Your task to perform on an android device: open wifi settings Image 0: 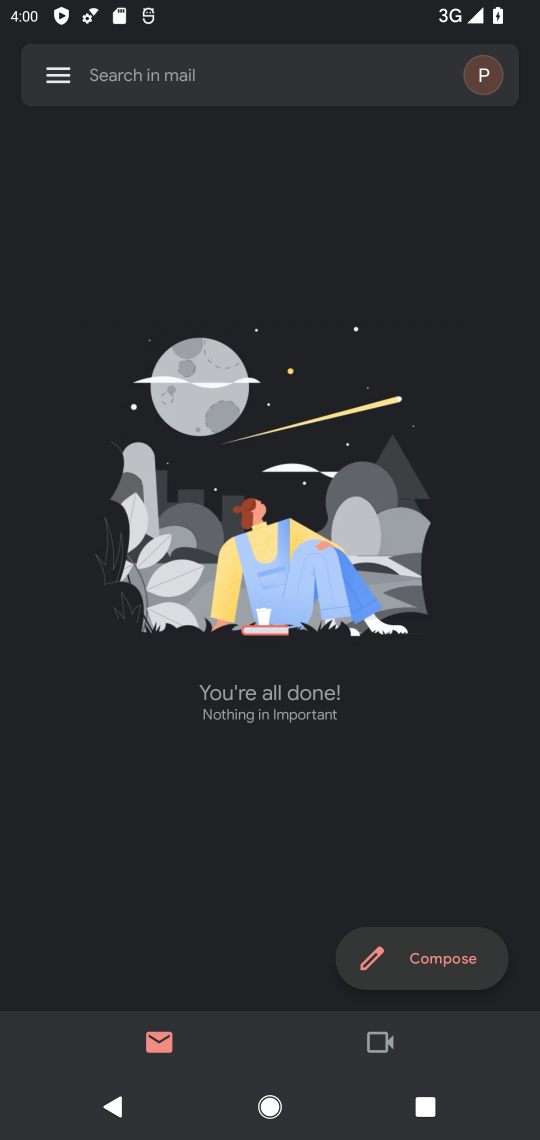
Step 0: press home button
Your task to perform on an android device: open wifi settings Image 1: 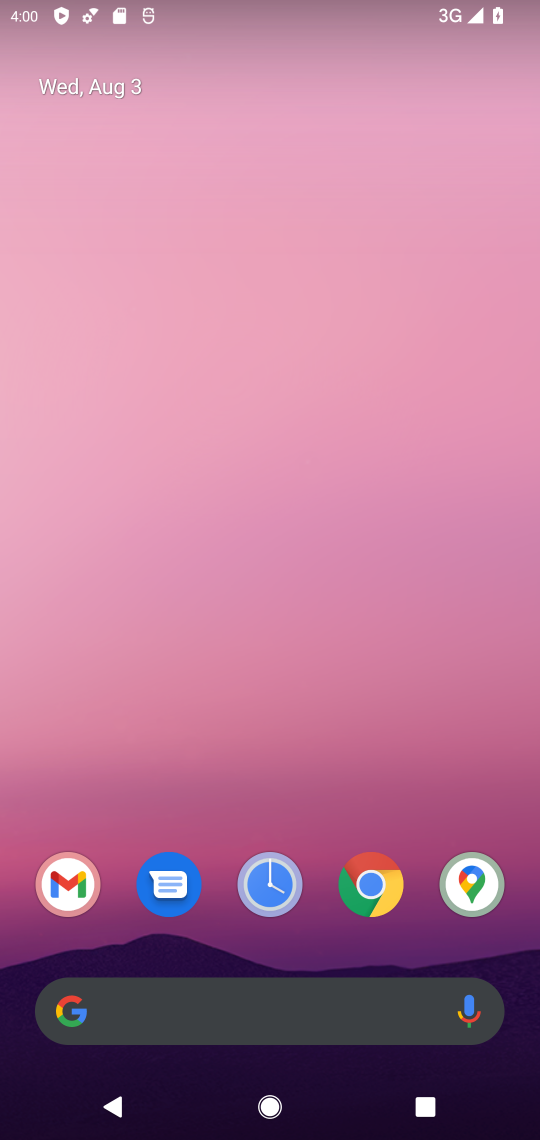
Step 1: drag from (212, 964) to (290, 245)
Your task to perform on an android device: open wifi settings Image 2: 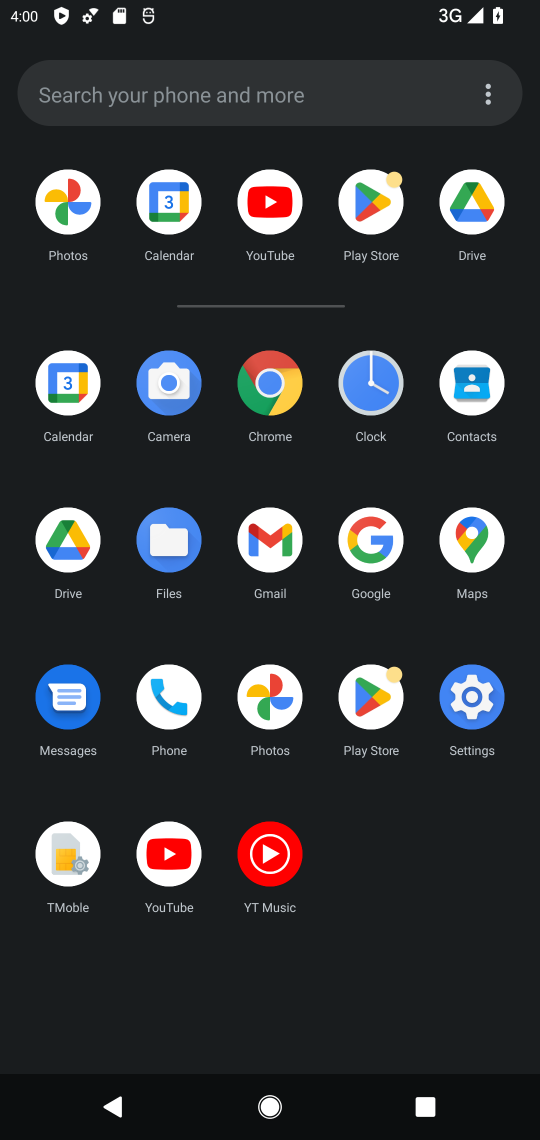
Step 2: click (475, 733)
Your task to perform on an android device: open wifi settings Image 3: 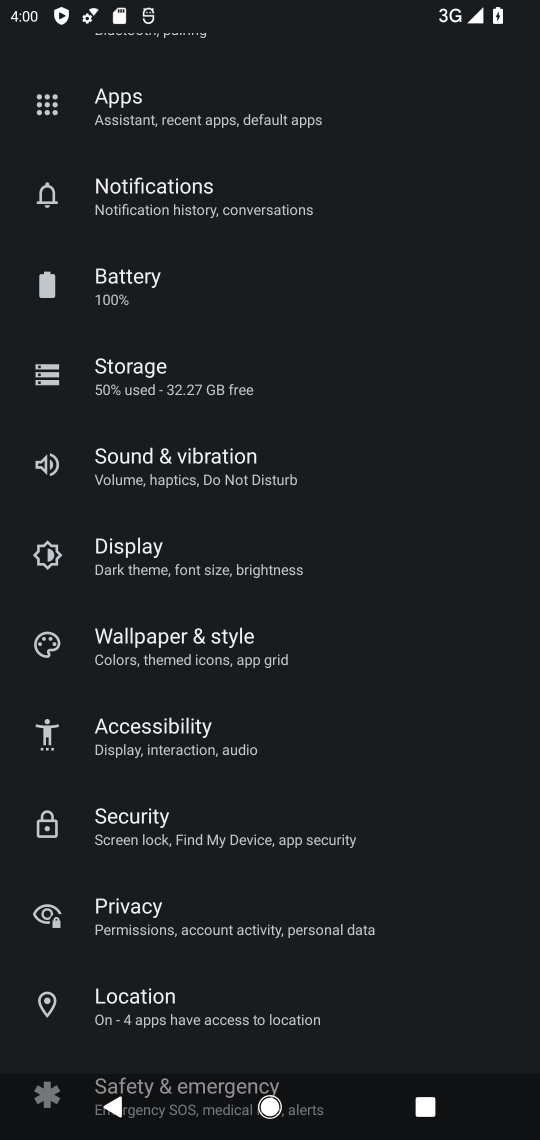
Step 3: drag from (261, 183) to (327, 913)
Your task to perform on an android device: open wifi settings Image 4: 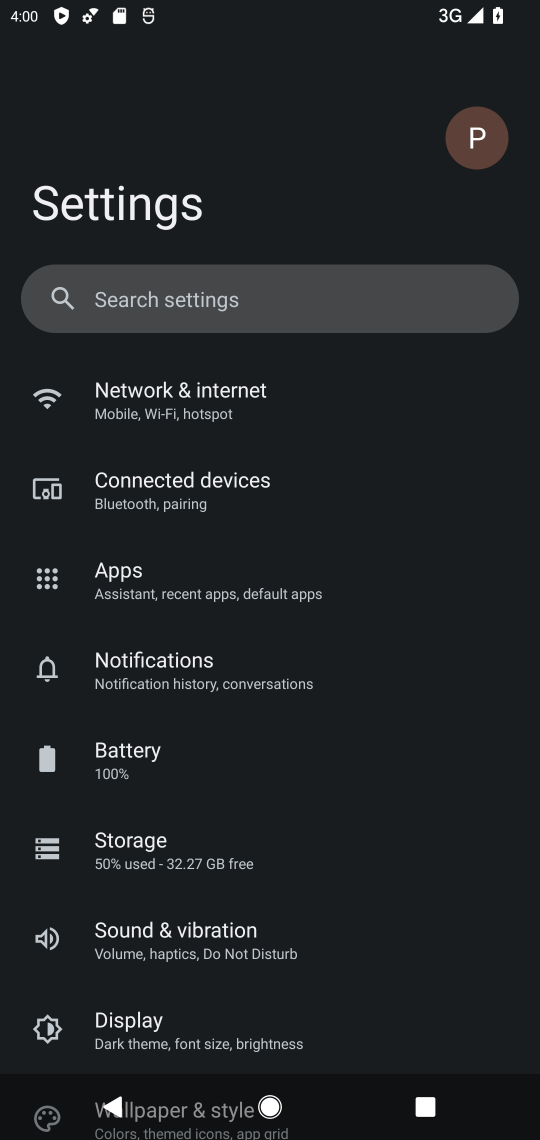
Step 4: click (311, 425)
Your task to perform on an android device: open wifi settings Image 5: 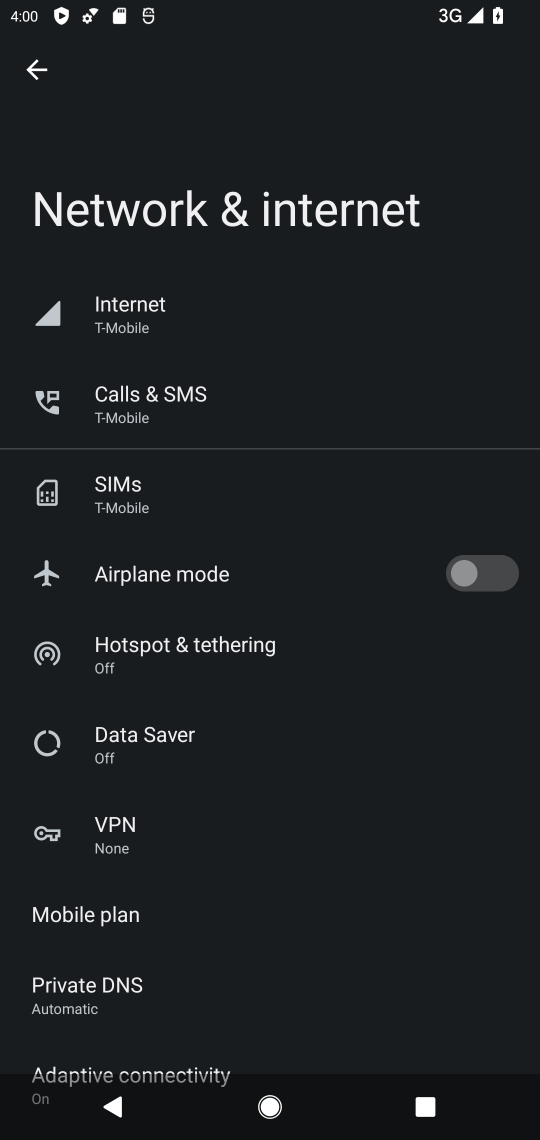
Step 5: task complete